Your task to perform on an android device: Open the stopwatch Image 0: 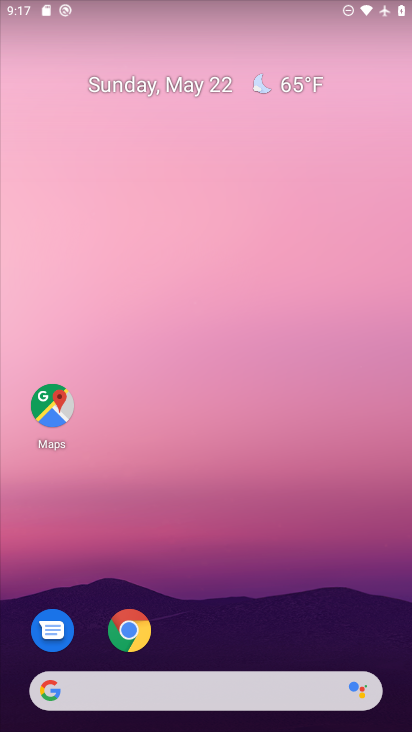
Step 0: press home button
Your task to perform on an android device: Open the stopwatch Image 1: 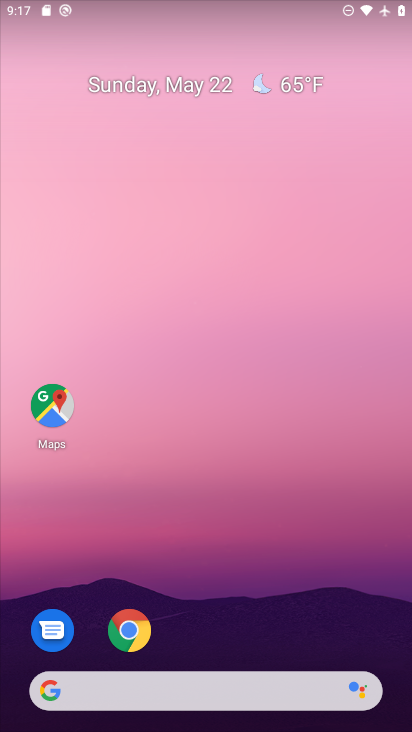
Step 1: drag from (190, 702) to (386, 28)
Your task to perform on an android device: Open the stopwatch Image 2: 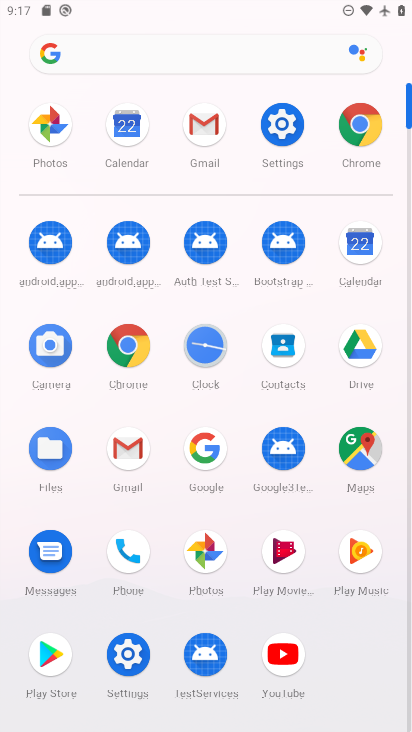
Step 2: click (213, 354)
Your task to perform on an android device: Open the stopwatch Image 3: 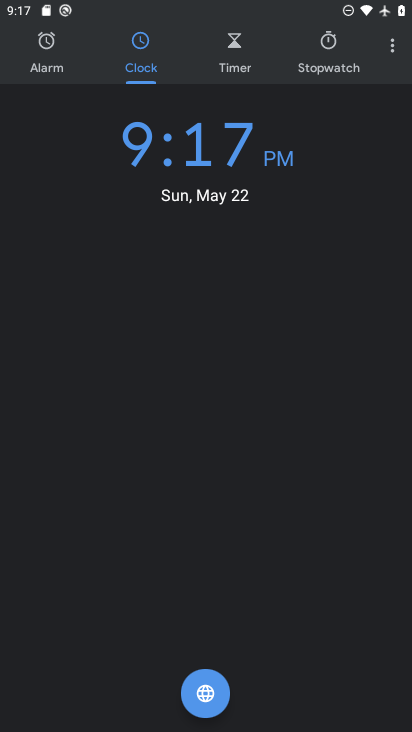
Step 3: click (326, 68)
Your task to perform on an android device: Open the stopwatch Image 4: 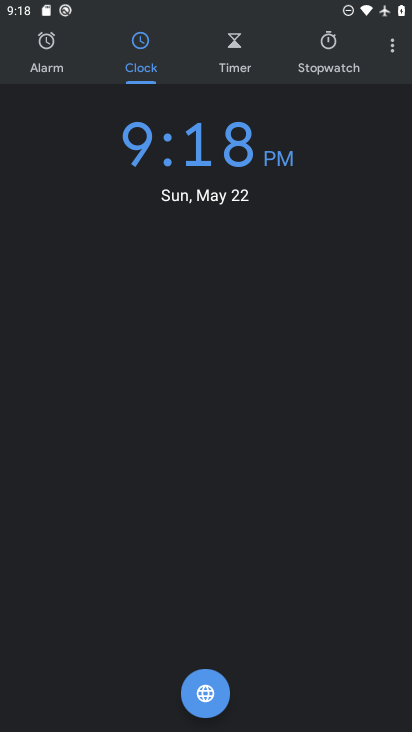
Step 4: click (339, 48)
Your task to perform on an android device: Open the stopwatch Image 5: 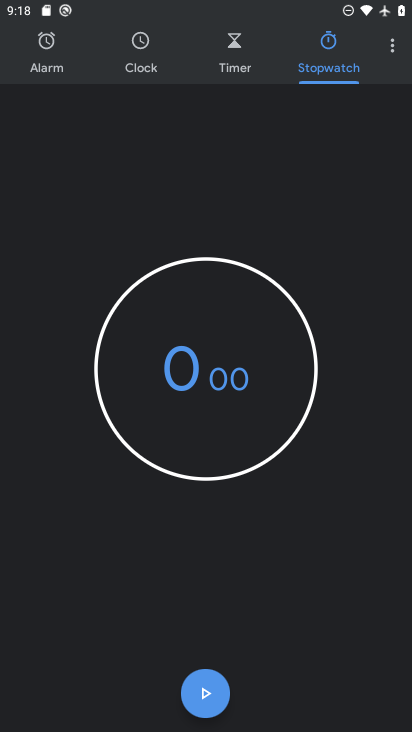
Step 5: task complete